Your task to perform on an android device: Open Maps and search for coffee Image 0: 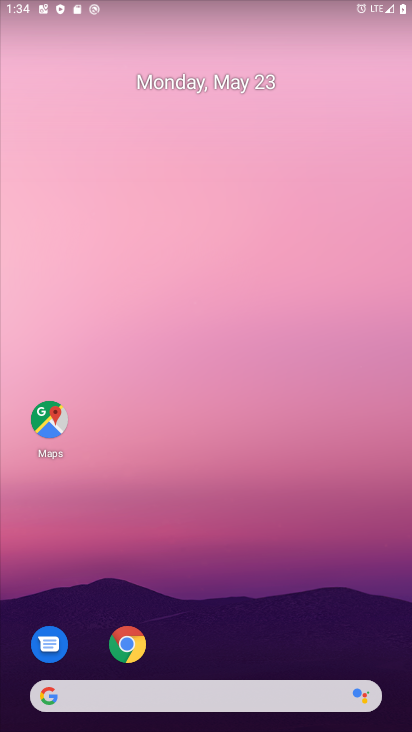
Step 0: drag from (353, 648) to (266, 16)
Your task to perform on an android device: Open Maps and search for coffee Image 1: 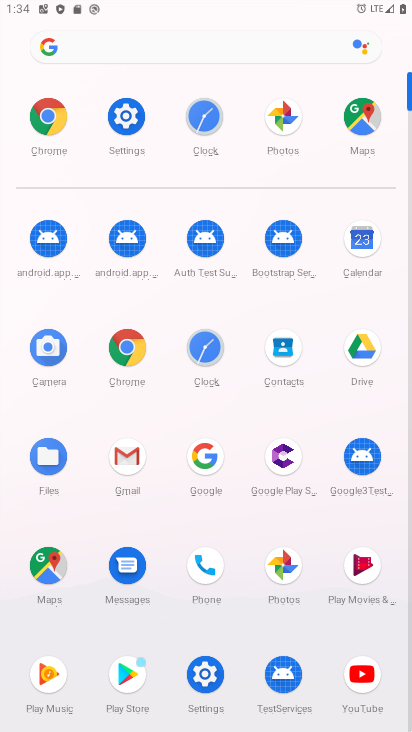
Step 1: click (47, 580)
Your task to perform on an android device: Open Maps and search for coffee Image 2: 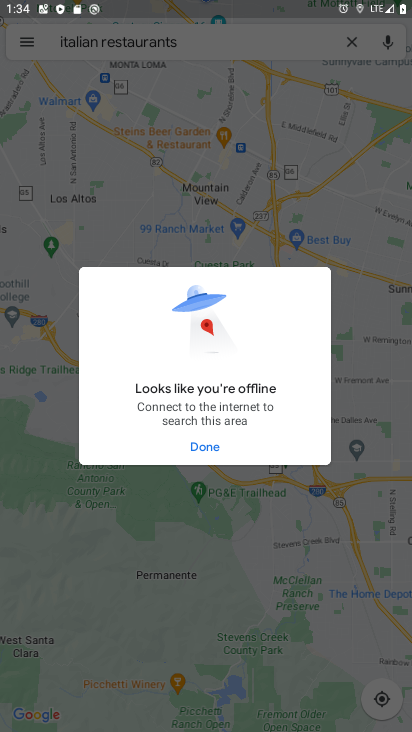
Step 2: press back button
Your task to perform on an android device: Open Maps and search for coffee Image 3: 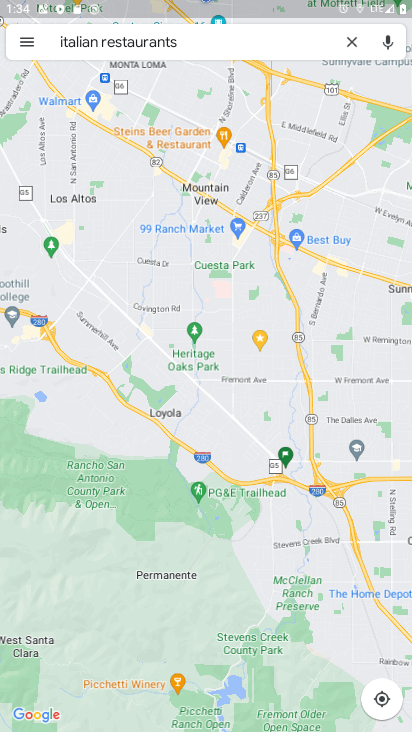
Step 3: click (360, 41)
Your task to perform on an android device: Open Maps and search for coffee Image 4: 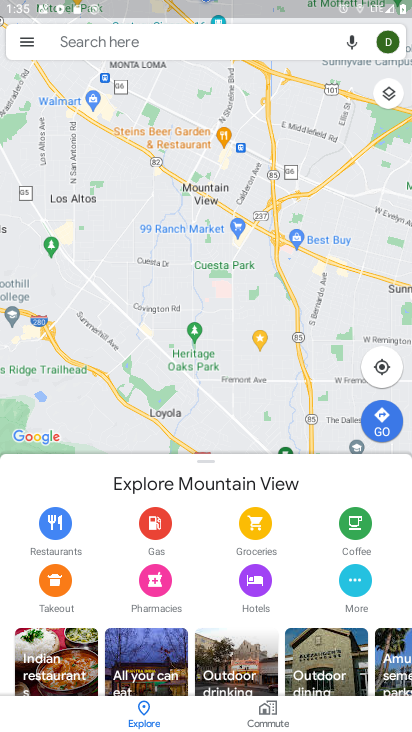
Step 4: click (114, 47)
Your task to perform on an android device: Open Maps and search for coffee Image 5: 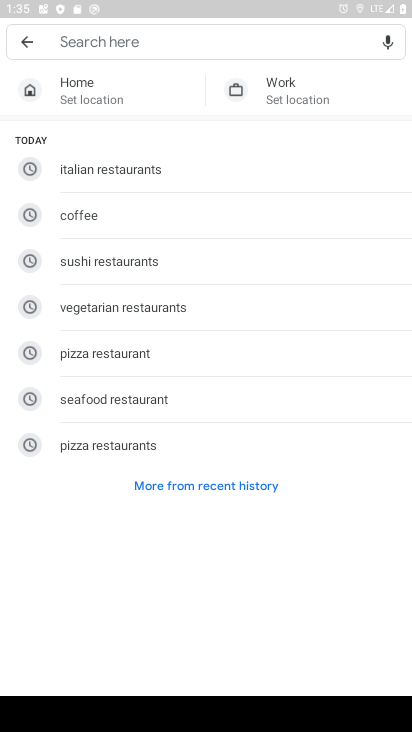
Step 5: click (154, 195)
Your task to perform on an android device: Open Maps and search for coffee Image 6: 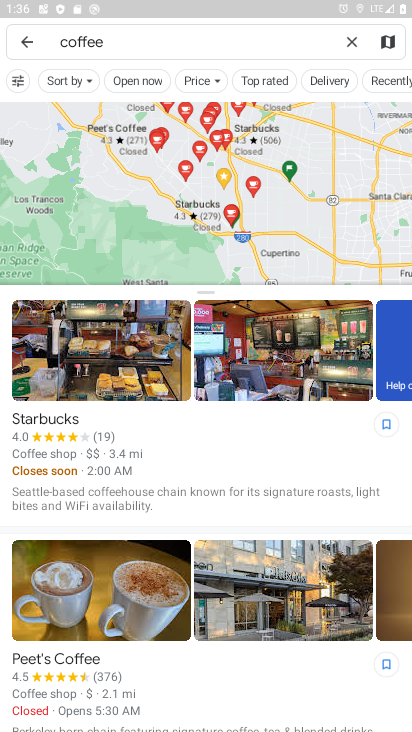
Step 6: task complete